Your task to perform on an android device: check battery use Image 0: 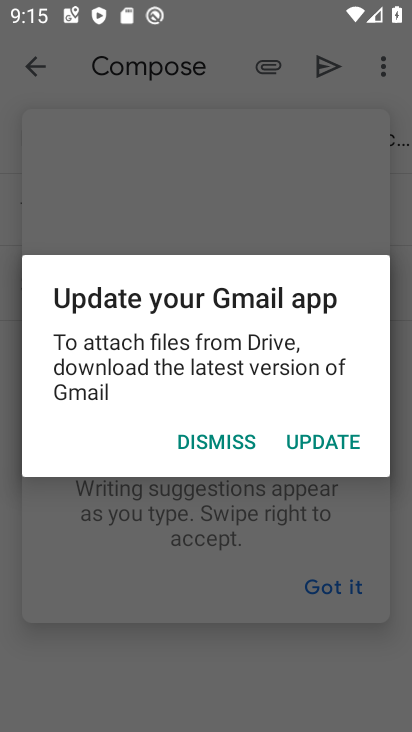
Step 0: press home button
Your task to perform on an android device: check battery use Image 1: 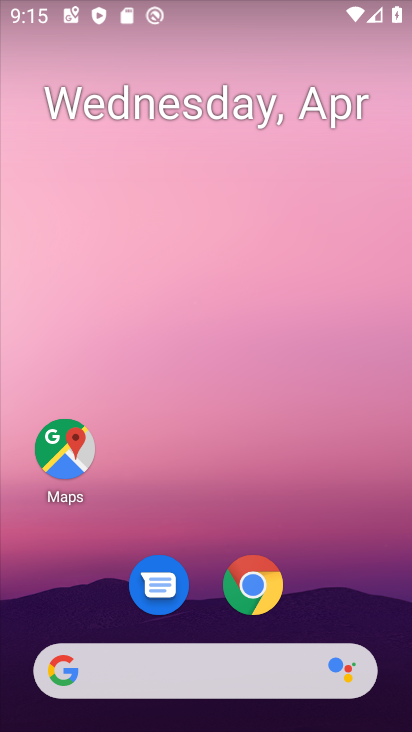
Step 1: drag from (341, 529) to (350, 74)
Your task to perform on an android device: check battery use Image 2: 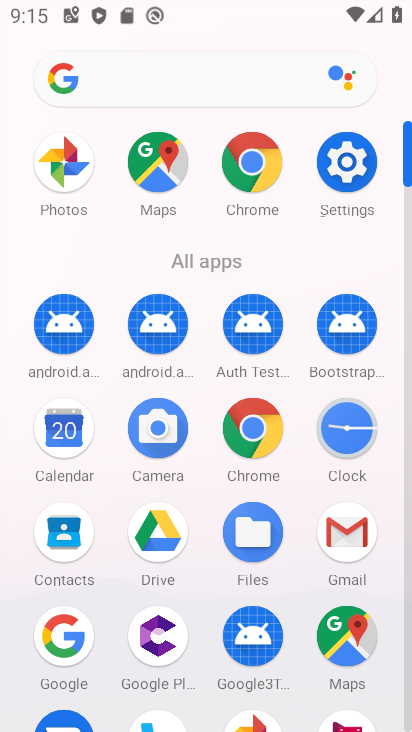
Step 2: click (348, 161)
Your task to perform on an android device: check battery use Image 3: 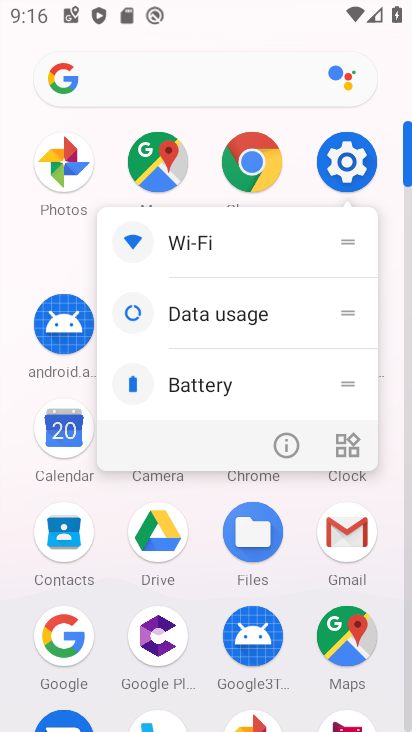
Step 3: click (348, 161)
Your task to perform on an android device: check battery use Image 4: 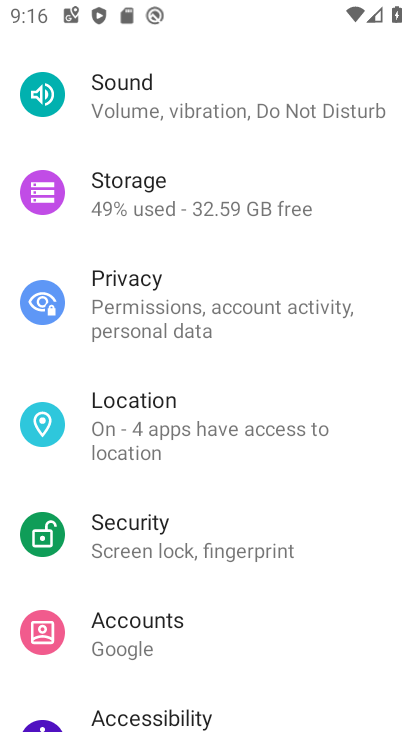
Step 4: drag from (271, 171) to (246, 657)
Your task to perform on an android device: check battery use Image 5: 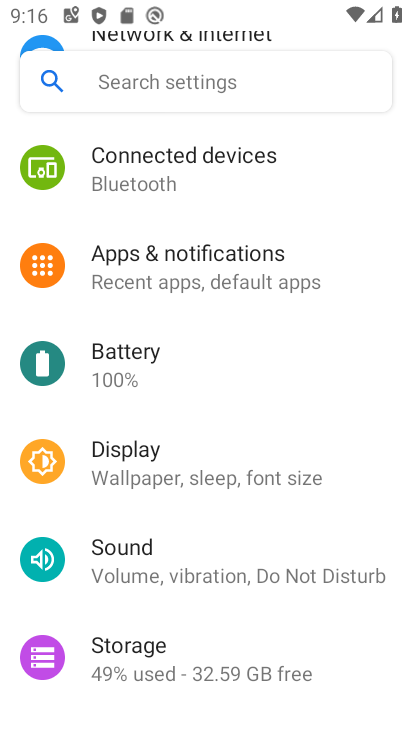
Step 5: click (217, 355)
Your task to perform on an android device: check battery use Image 6: 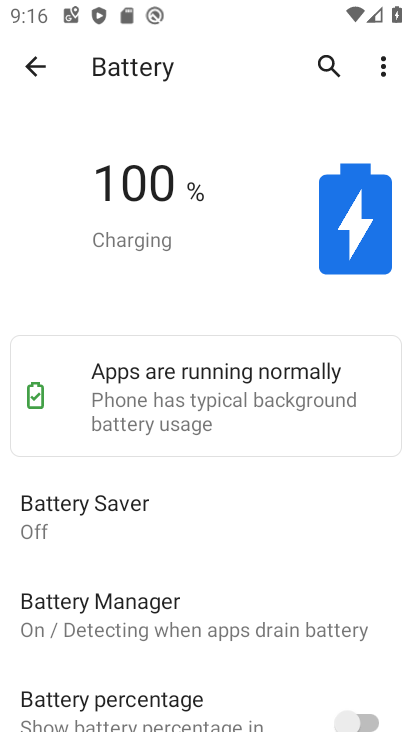
Step 6: click (378, 66)
Your task to perform on an android device: check battery use Image 7: 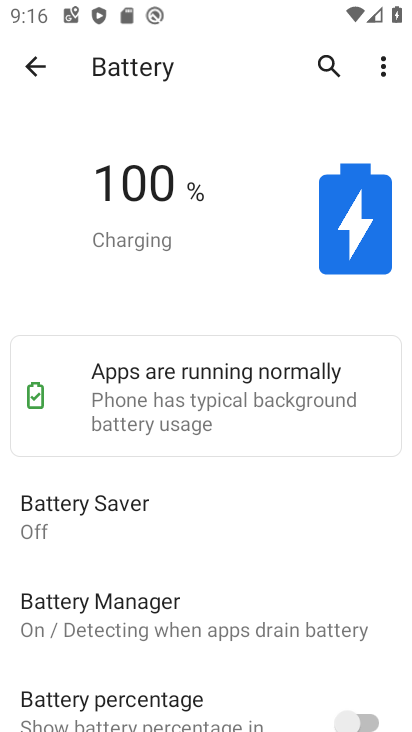
Step 7: click (381, 63)
Your task to perform on an android device: check battery use Image 8: 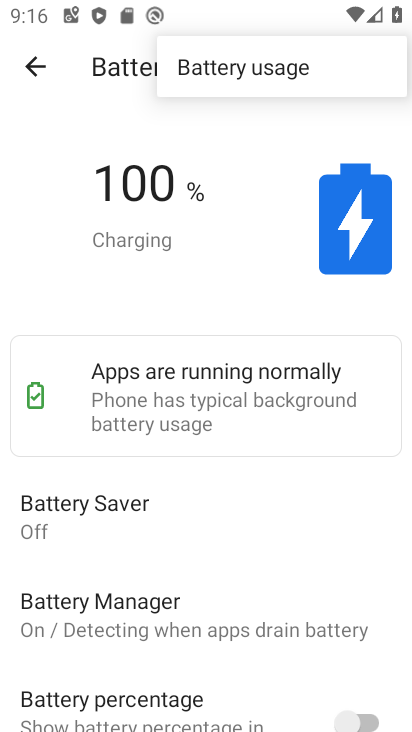
Step 8: click (308, 69)
Your task to perform on an android device: check battery use Image 9: 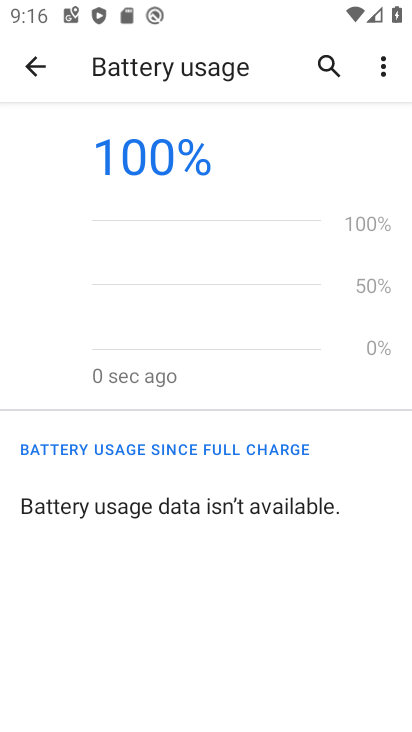
Step 9: task complete